Your task to perform on an android device: turn off airplane mode Image 0: 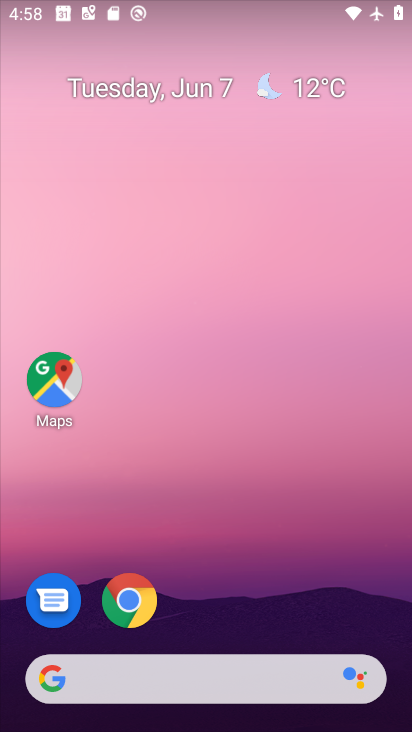
Step 0: drag from (222, 566) to (225, 123)
Your task to perform on an android device: turn off airplane mode Image 1: 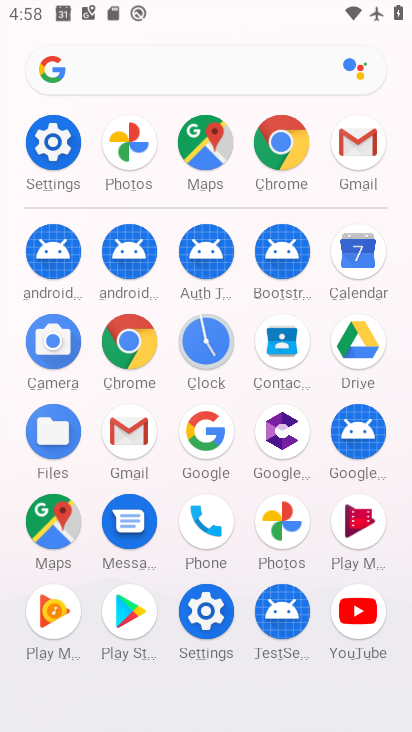
Step 1: click (60, 153)
Your task to perform on an android device: turn off airplane mode Image 2: 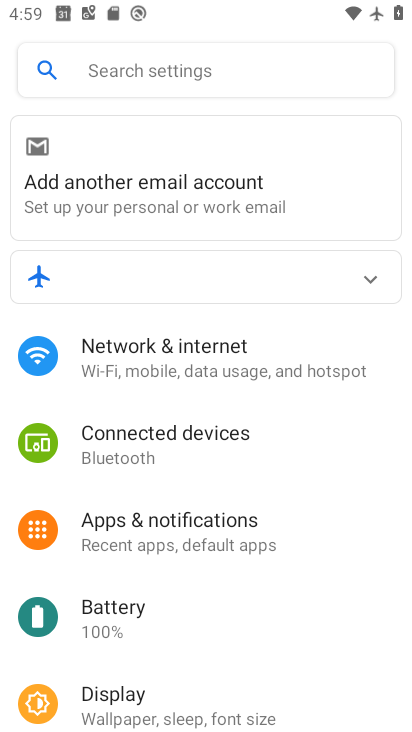
Step 2: click (219, 362)
Your task to perform on an android device: turn off airplane mode Image 3: 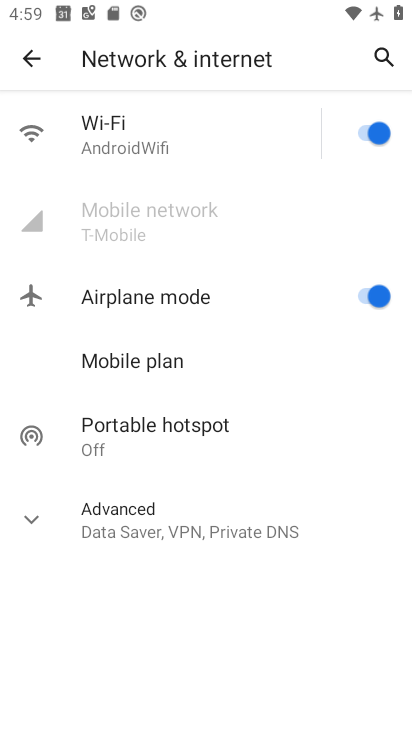
Step 3: click (411, 309)
Your task to perform on an android device: turn off airplane mode Image 4: 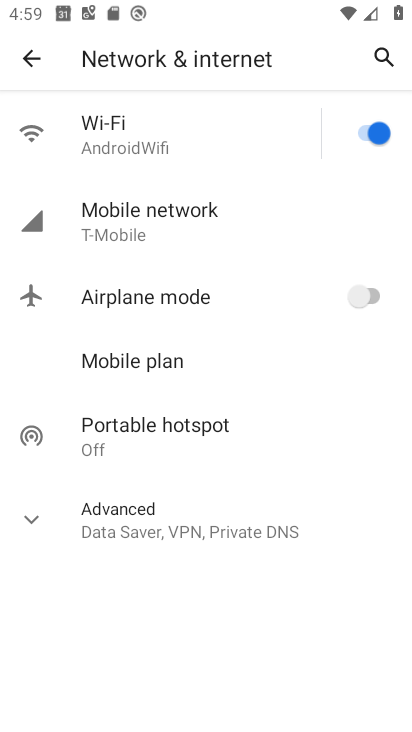
Step 4: task complete